Your task to perform on an android device: Open calendar and show me the third week of next month Image 0: 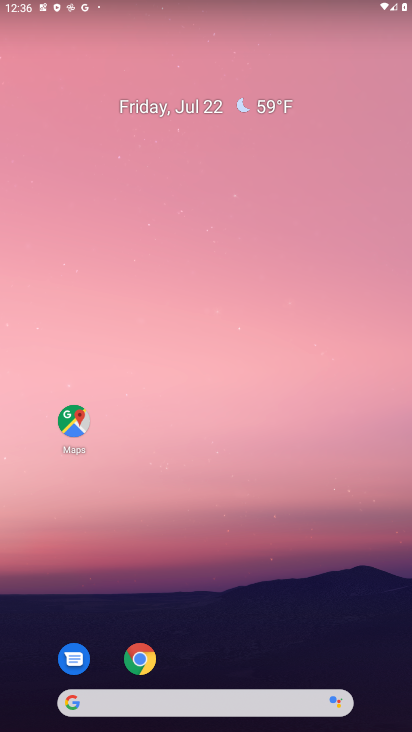
Step 0: click (250, 5)
Your task to perform on an android device: Open calendar and show me the third week of next month Image 1: 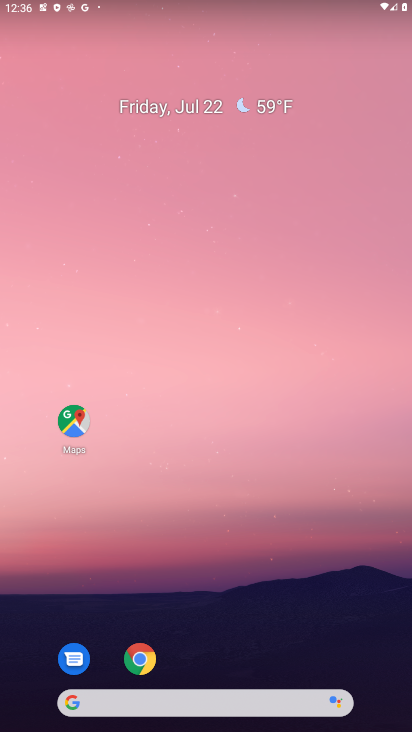
Step 1: drag from (271, 548) to (314, 0)
Your task to perform on an android device: Open calendar and show me the third week of next month Image 2: 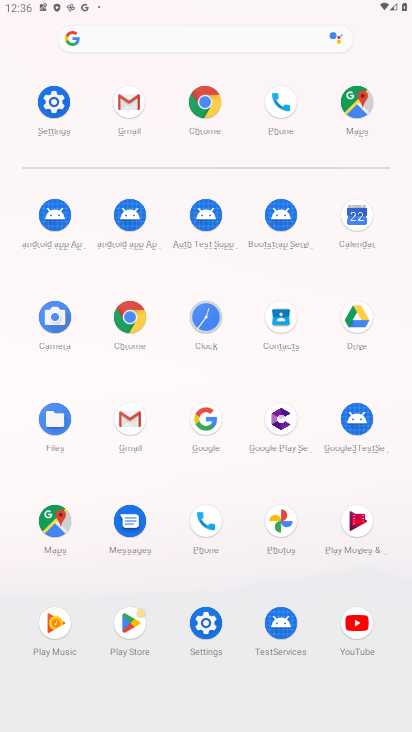
Step 2: click (353, 208)
Your task to perform on an android device: Open calendar and show me the third week of next month Image 3: 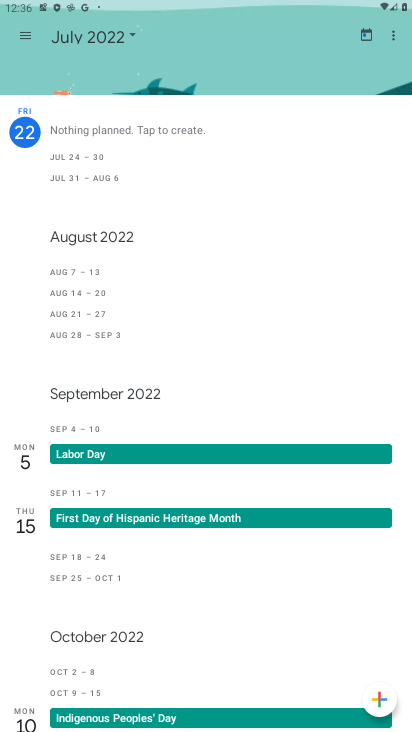
Step 3: click (108, 34)
Your task to perform on an android device: Open calendar and show me the third week of next month Image 4: 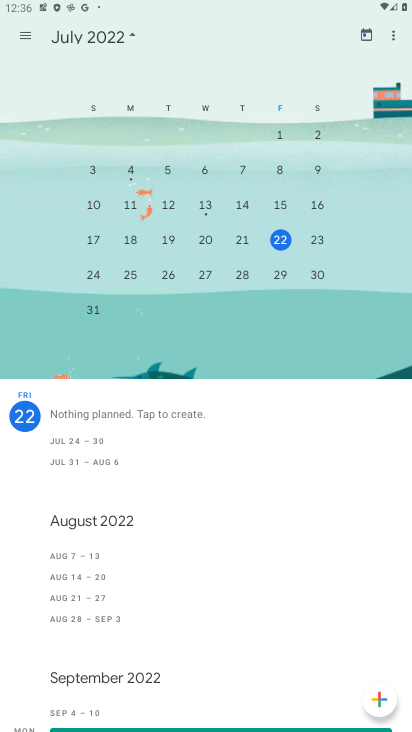
Step 4: drag from (215, 209) to (23, 324)
Your task to perform on an android device: Open calendar and show me the third week of next month Image 5: 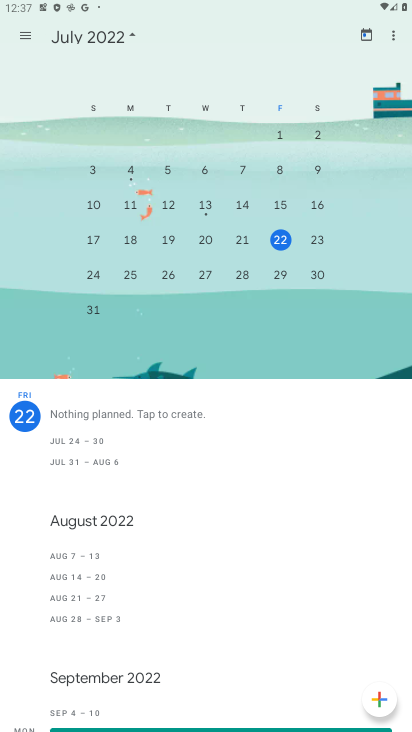
Step 5: click (243, 242)
Your task to perform on an android device: Open calendar and show me the third week of next month Image 6: 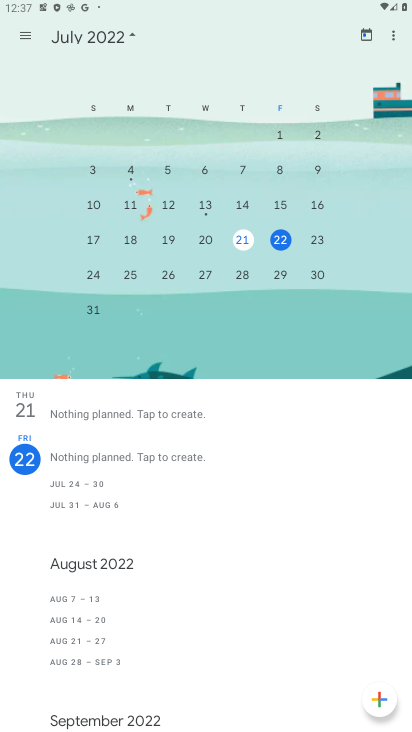
Step 6: task complete